Your task to perform on an android device: Open settings Image 0: 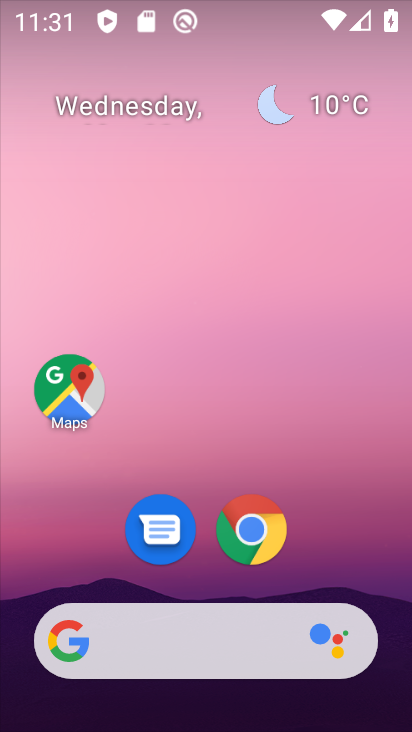
Step 0: drag from (229, 185) to (220, 95)
Your task to perform on an android device: Open settings Image 1: 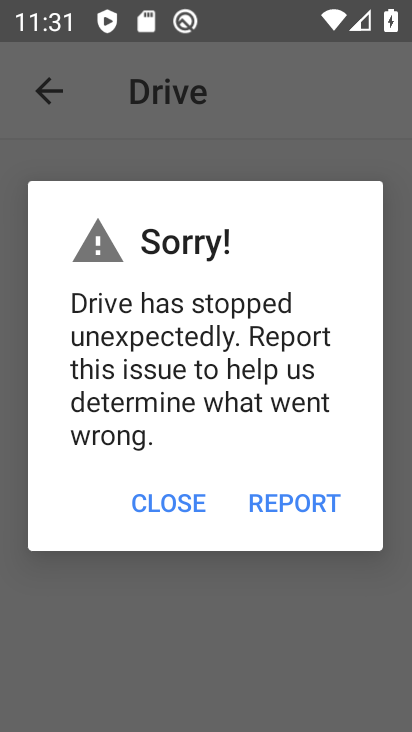
Step 1: press home button
Your task to perform on an android device: Open settings Image 2: 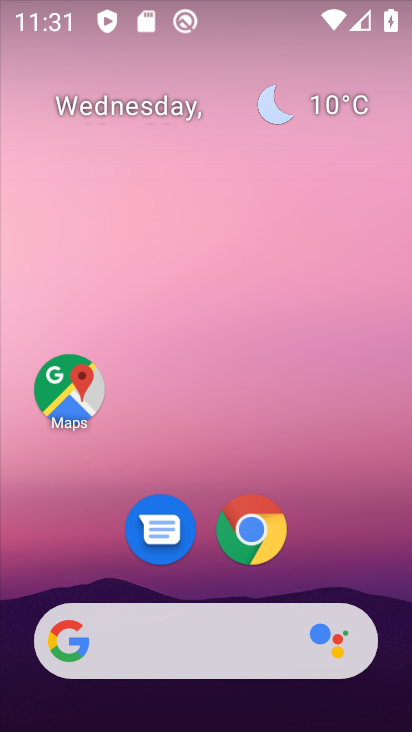
Step 2: drag from (166, 609) to (309, 68)
Your task to perform on an android device: Open settings Image 3: 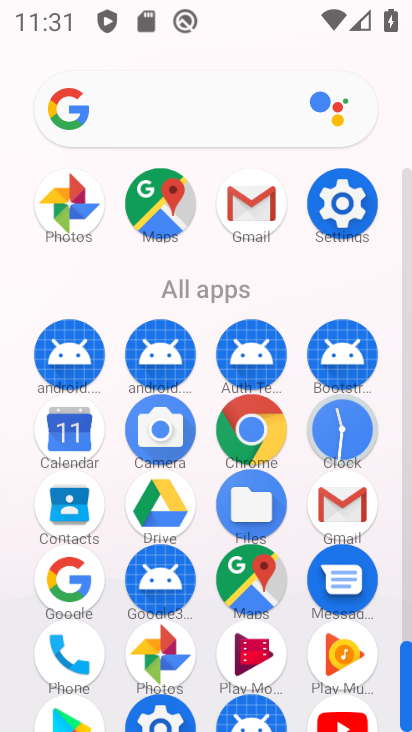
Step 3: drag from (204, 564) to (266, 303)
Your task to perform on an android device: Open settings Image 4: 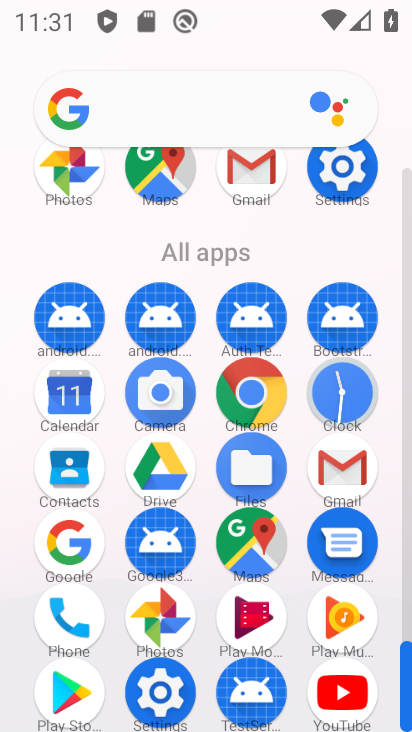
Step 4: click (171, 705)
Your task to perform on an android device: Open settings Image 5: 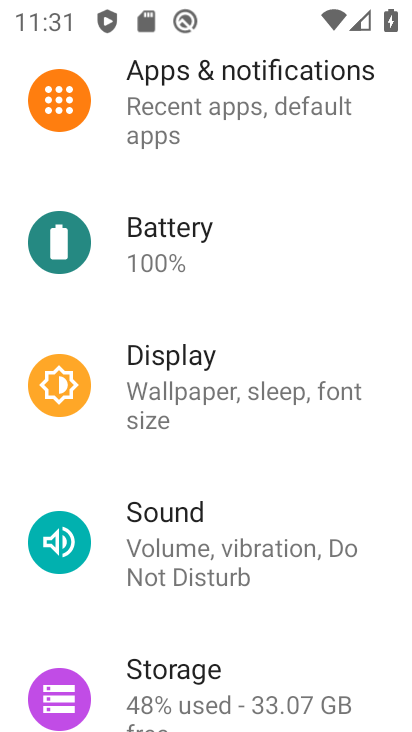
Step 5: task complete